Your task to perform on an android device: see sites visited before in the chrome app Image 0: 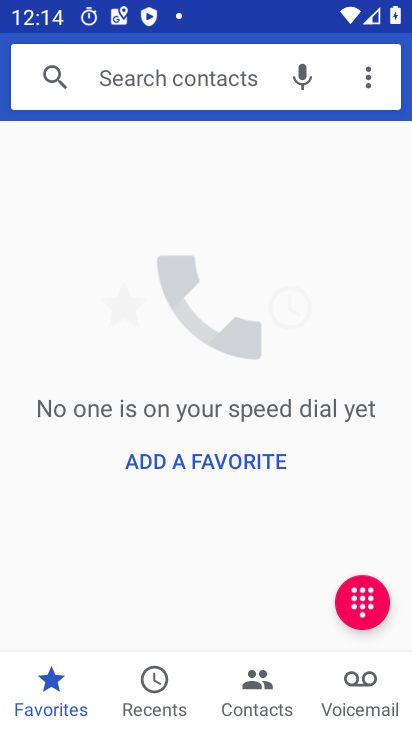
Step 0: press home button
Your task to perform on an android device: see sites visited before in the chrome app Image 1: 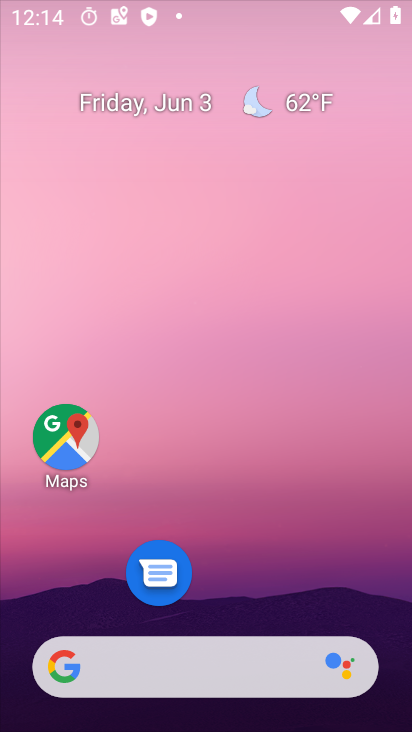
Step 1: drag from (286, 631) to (258, 122)
Your task to perform on an android device: see sites visited before in the chrome app Image 2: 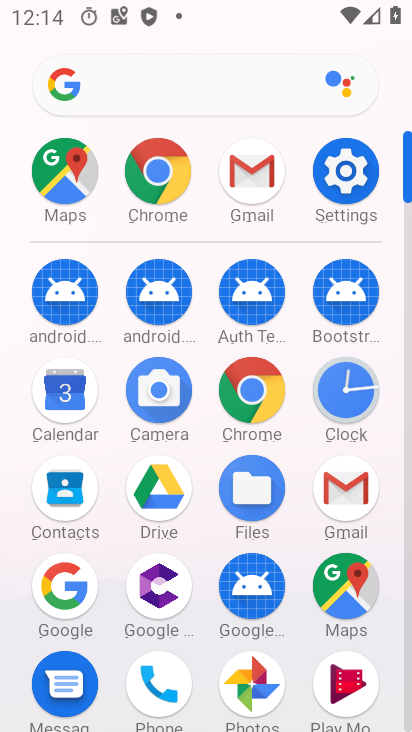
Step 2: click (263, 381)
Your task to perform on an android device: see sites visited before in the chrome app Image 3: 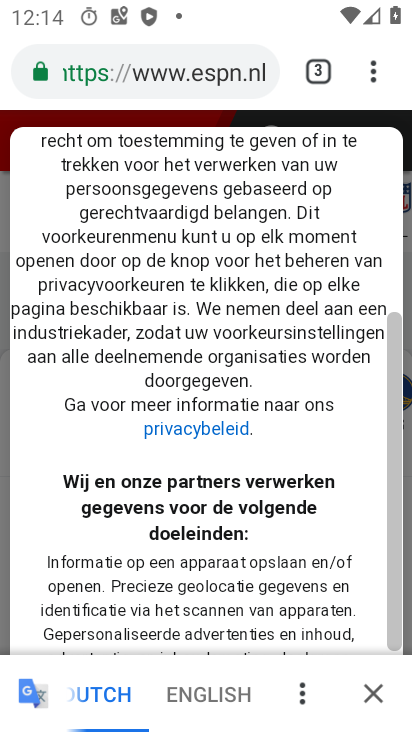
Step 3: task complete